Your task to perform on an android device: Go to eBay Image 0: 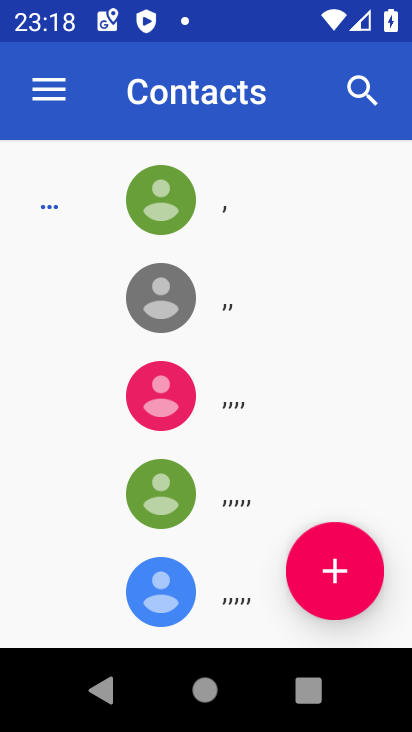
Step 0: press home button
Your task to perform on an android device: Go to eBay Image 1: 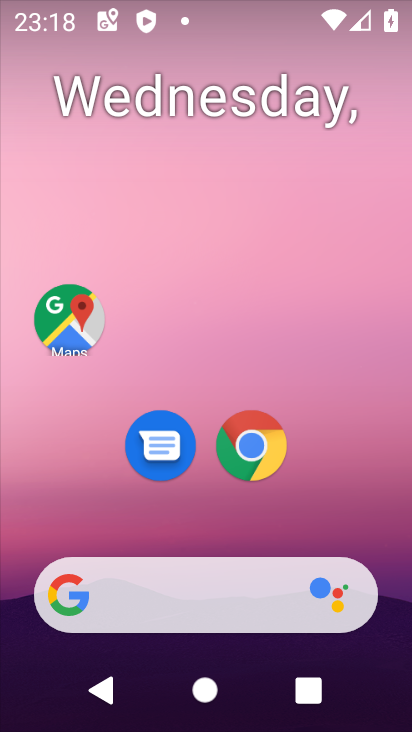
Step 1: click (254, 440)
Your task to perform on an android device: Go to eBay Image 2: 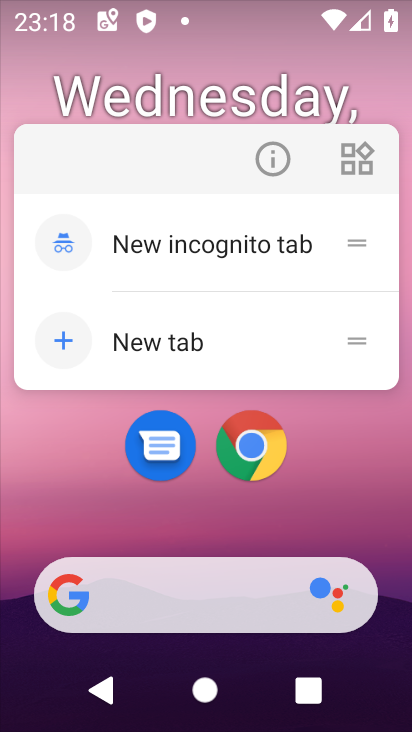
Step 2: click (222, 443)
Your task to perform on an android device: Go to eBay Image 3: 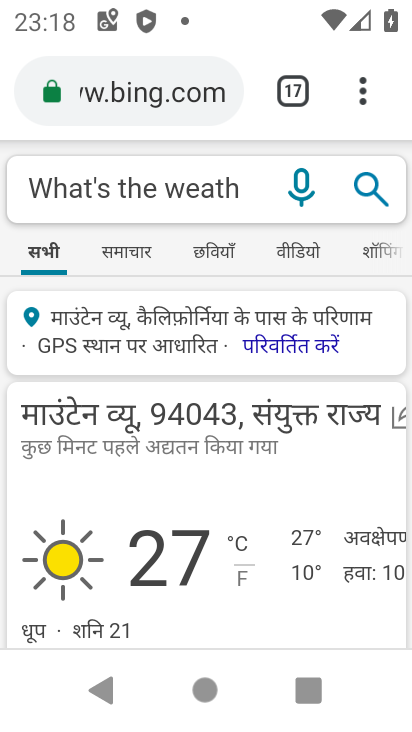
Step 3: click (350, 96)
Your task to perform on an android device: Go to eBay Image 4: 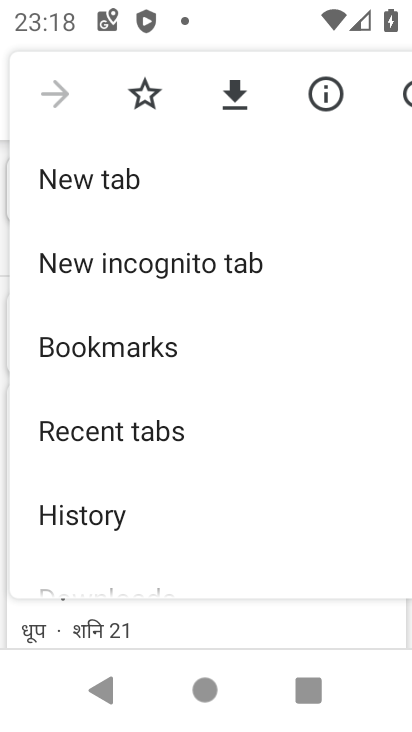
Step 4: click (103, 187)
Your task to perform on an android device: Go to eBay Image 5: 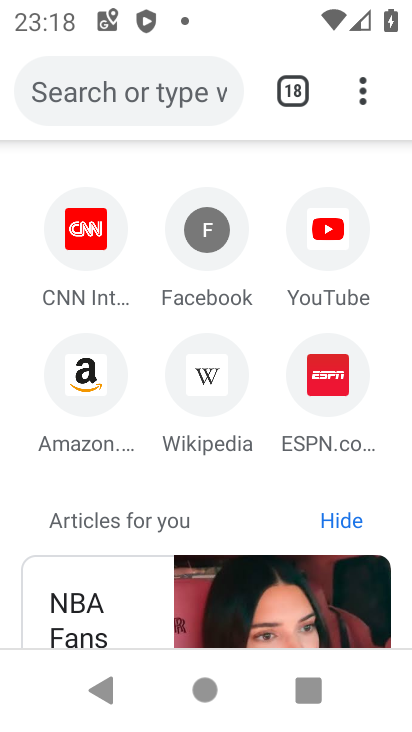
Step 5: click (146, 82)
Your task to perform on an android device: Go to eBay Image 6: 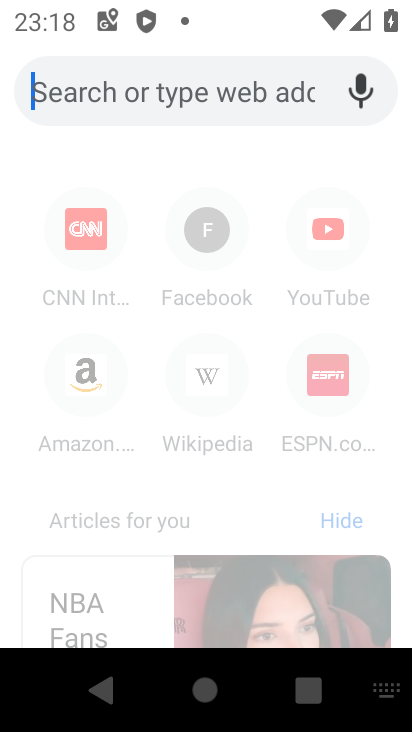
Step 6: type "eBay"
Your task to perform on an android device: Go to eBay Image 7: 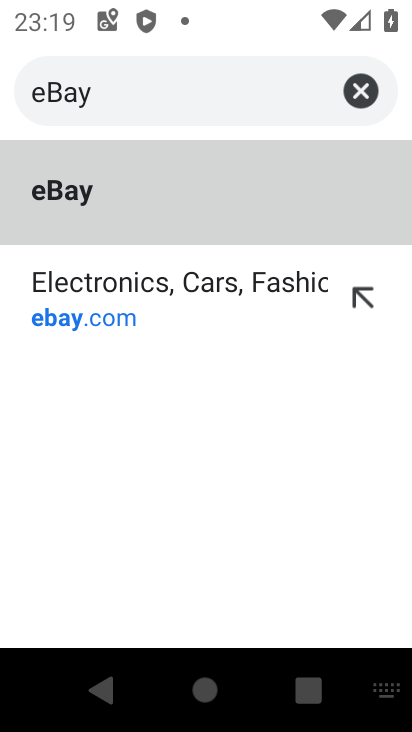
Step 7: click (247, 206)
Your task to perform on an android device: Go to eBay Image 8: 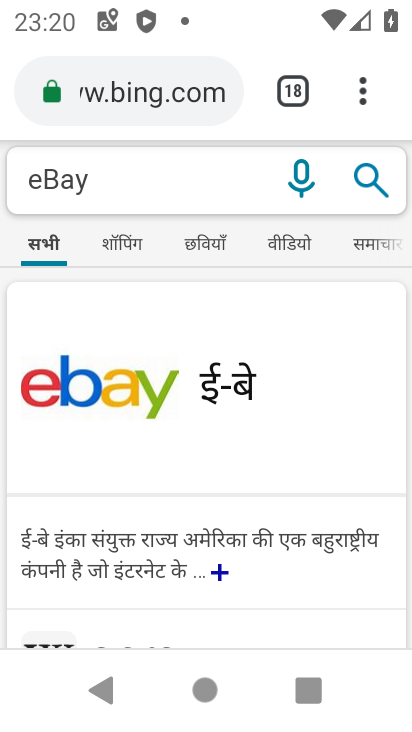
Step 8: task complete